Your task to perform on an android device: turn on the 12-hour format for clock Image 0: 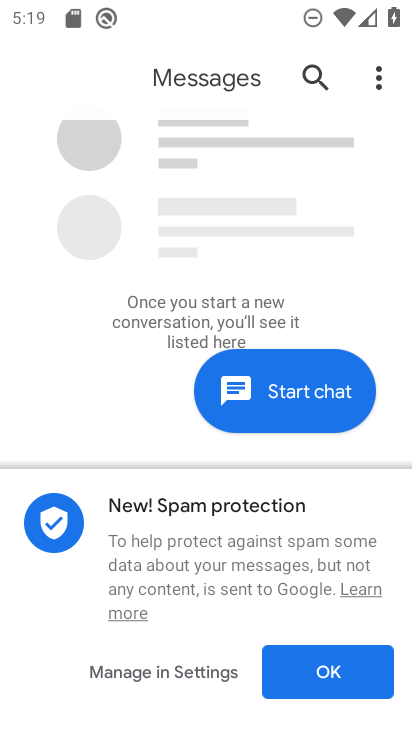
Step 0: press back button
Your task to perform on an android device: turn on the 12-hour format for clock Image 1: 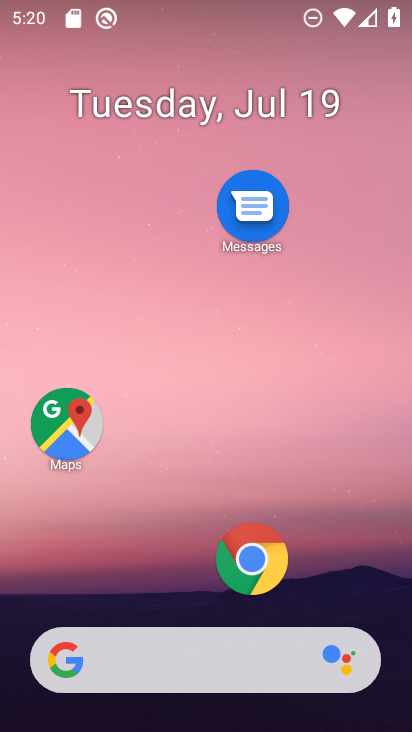
Step 1: drag from (169, 478) to (200, 217)
Your task to perform on an android device: turn on the 12-hour format for clock Image 2: 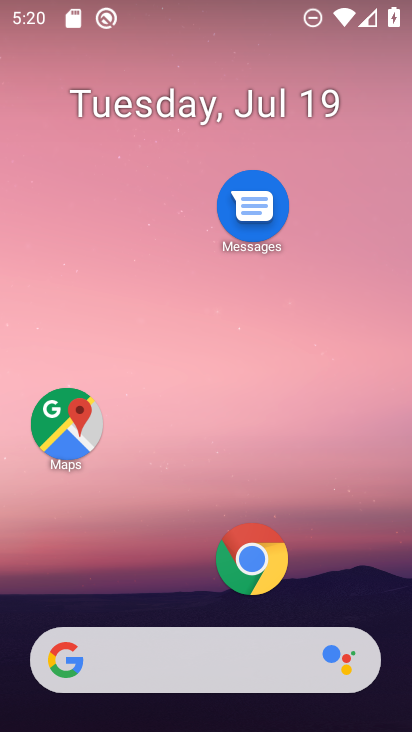
Step 2: drag from (101, 527) to (171, 48)
Your task to perform on an android device: turn on the 12-hour format for clock Image 3: 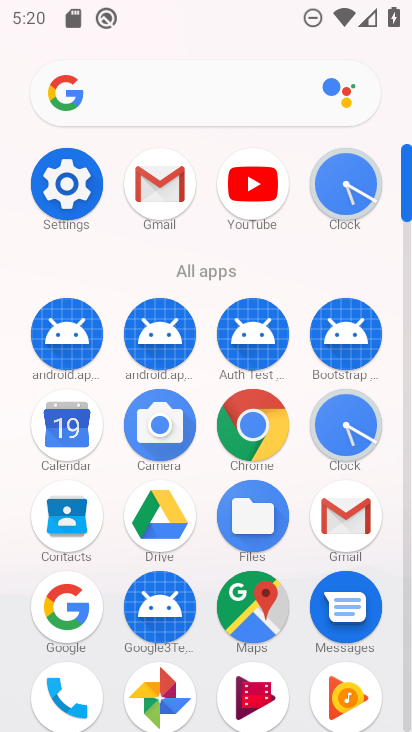
Step 3: click (349, 425)
Your task to perform on an android device: turn on the 12-hour format for clock Image 4: 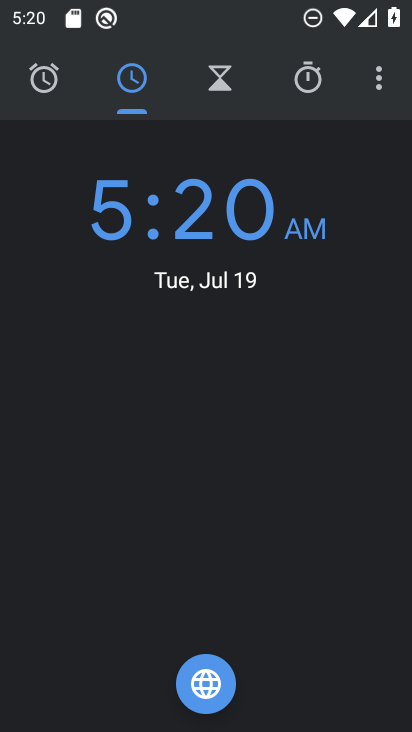
Step 4: click (385, 81)
Your task to perform on an android device: turn on the 12-hour format for clock Image 5: 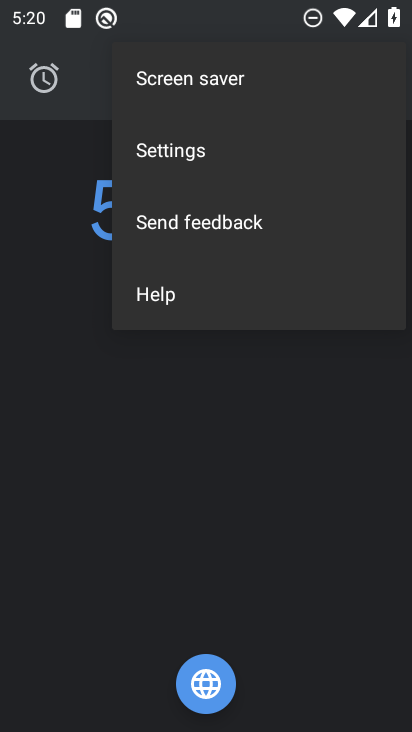
Step 5: click (169, 146)
Your task to perform on an android device: turn on the 12-hour format for clock Image 6: 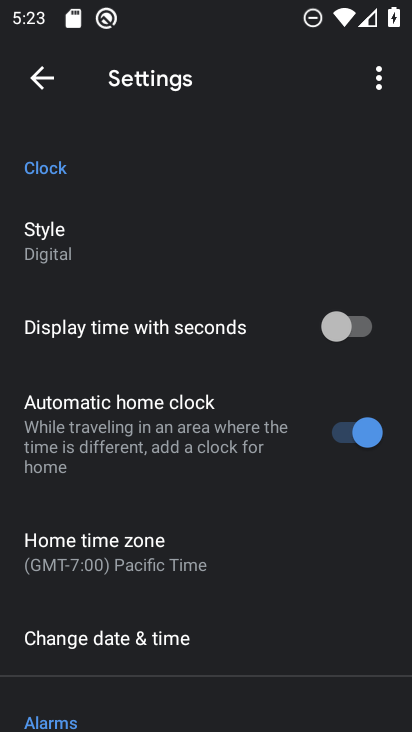
Step 6: click (84, 656)
Your task to perform on an android device: turn on the 12-hour format for clock Image 7: 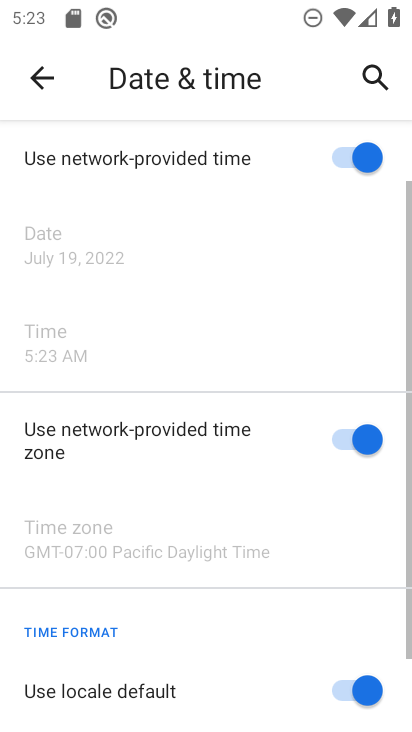
Step 7: task complete